Your task to perform on an android device: Do I have any events tomorrow? Image 0: 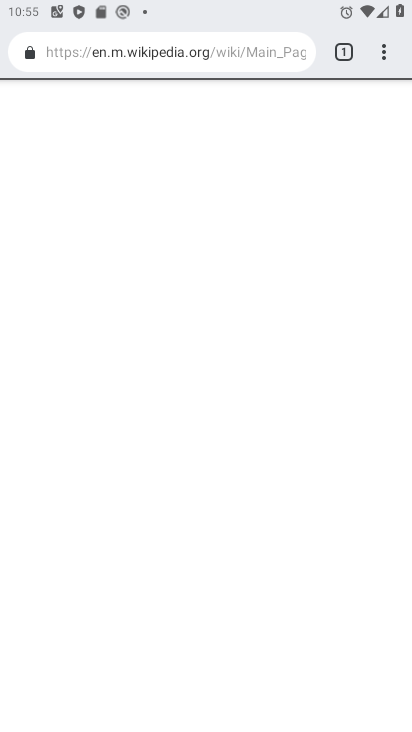
Step 0: press home button
Your task to perform on an android device: Do I have any events tomorrow? Image 1: 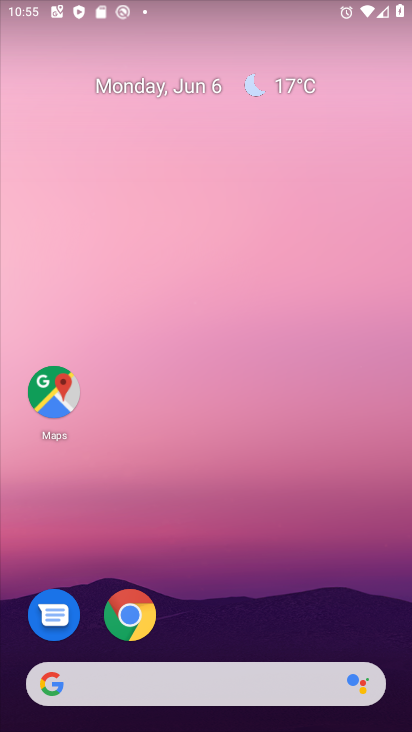
Step 1: drag from (202, 645) to (216, 48)
Your task to perform on an android device: Do I have any events tomorrow? Image 2: 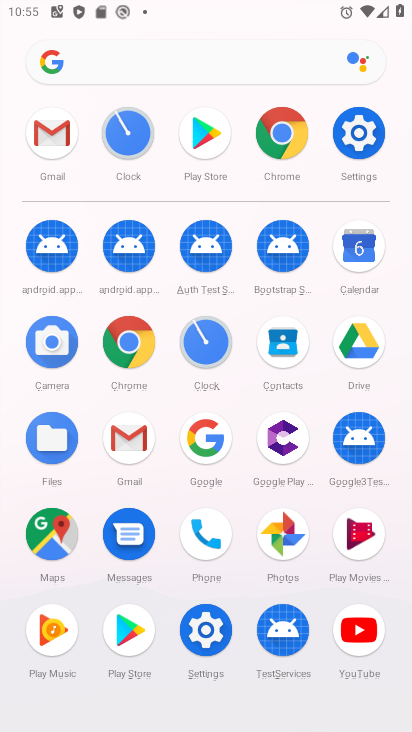
Step 2: click (355, 239)
Your task to perform on an android device: Do I have any events tomorrow? Image 3: 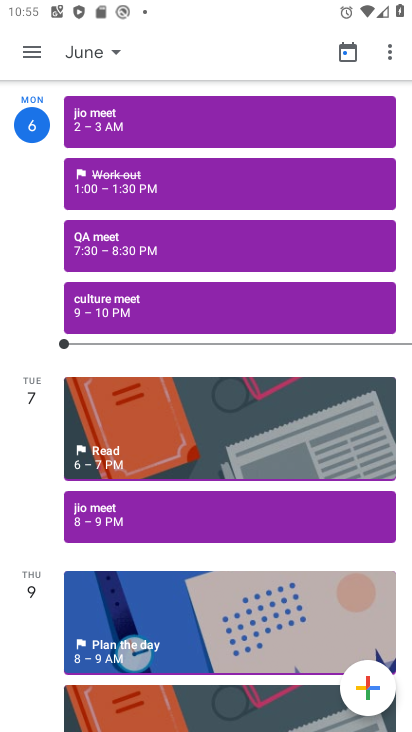
Step 3: click (42, 410)
Your task to perform on an android device: Do I have any events tomorrow? Image 4: 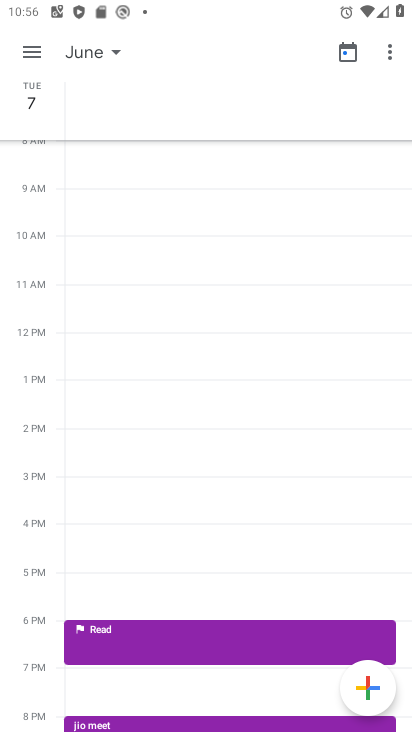
Step 4: task complete